Your task to perform on an android device: Open wifi settings Image 0: 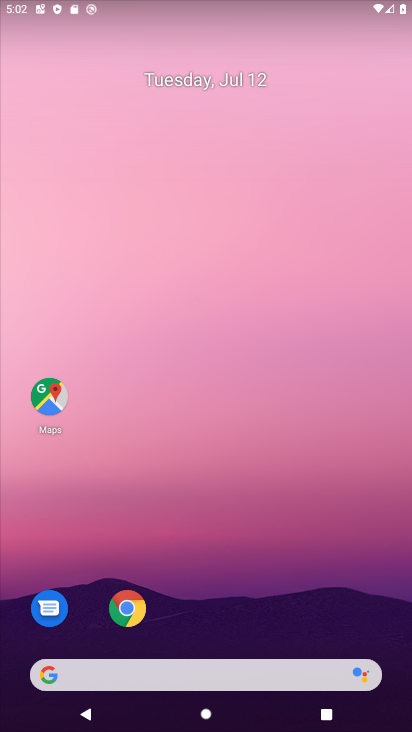
Step 0: drag from (116, 13) to (141, 668)
Your task to perform on an android device: Open wifi settings Image 1: 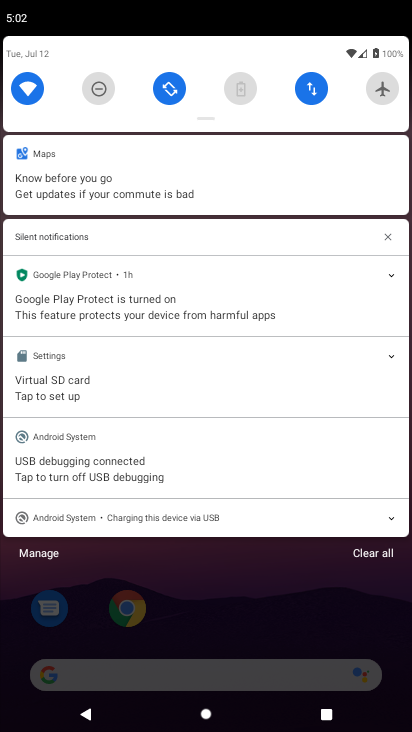
Step 1: click (31, 80)
Your task to perform on an android device: Open wifi settings Image 2: 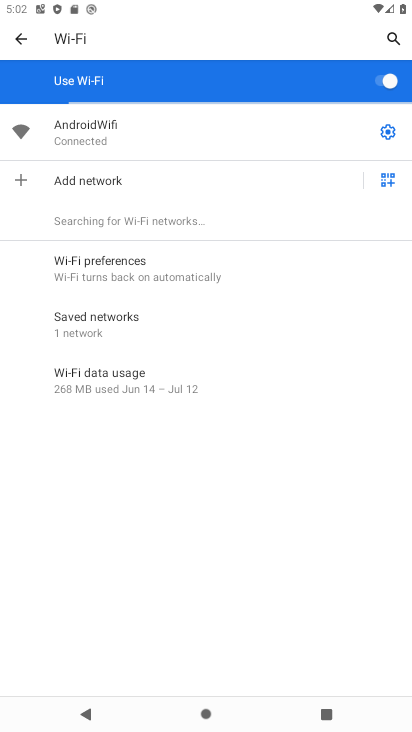
Step 2: task complete